Your task to perform on an android device: What's the weather going to be this weekend? Image 0: 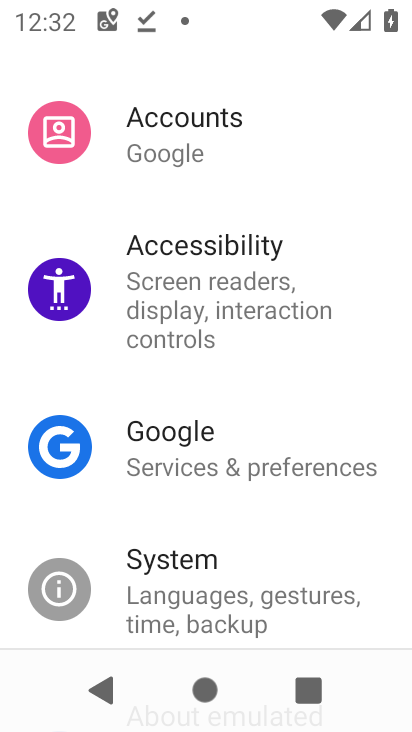
Step 0: press home button
Your task to perform on an android device: What's the weather going to be this weekend? Image 1: 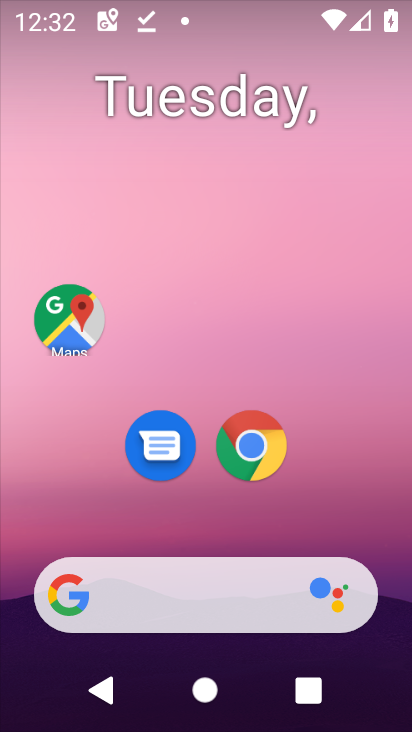
Step 1: drag from (321, 499) to (230, 114)
Your task to perform on an android device: What's the weather going to be this weekend? Image 2: 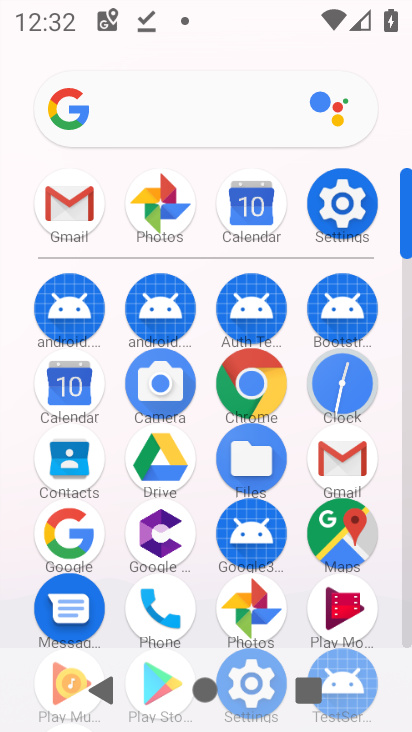
Step 2: click (108, 105)
Your task to perform on an android device: What's the weather going to be this weekend? Image 3: 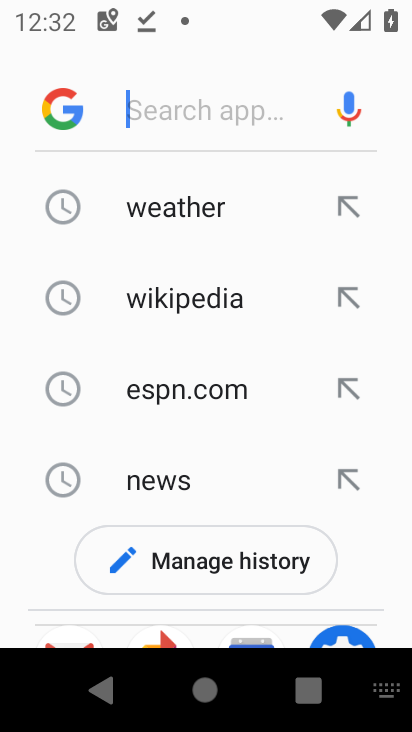
Step 3: click (169, 201)
Your task to perform on an android device: What's the weather going to be this weekend? Image 4: 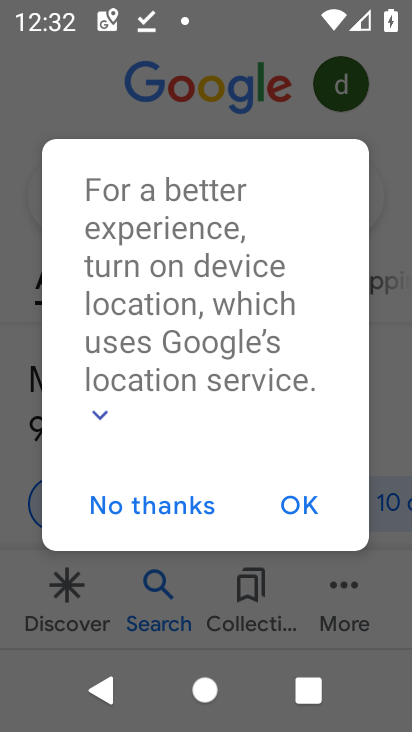
Step 4: click (300, 507)
Your task to perform on an android device: What's the weather going to be this weekend? Image 5: 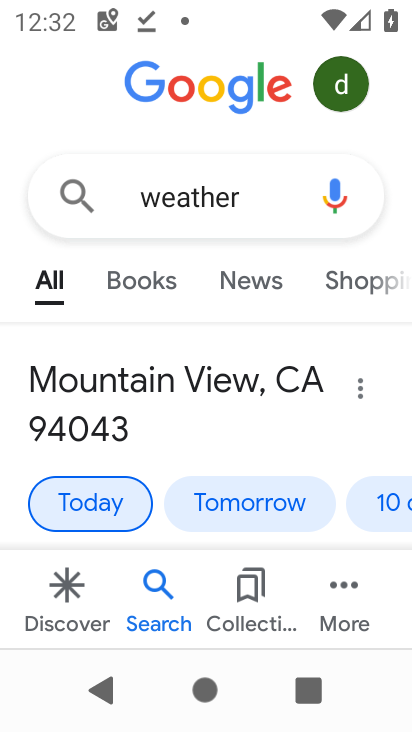
Step 5: click (380, 507)
Your task to perform on an android device: What's the weather going to be this weekend? Image 6: 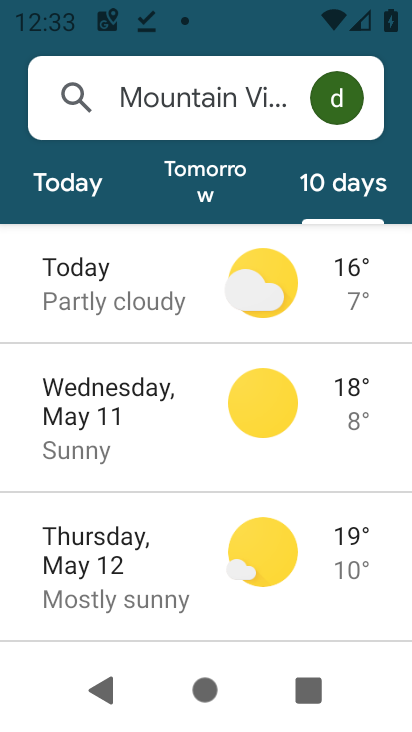
Step 6: task complete